Your task to perform on an android device: open the mobile data screen to see how much data has been used Image 0: 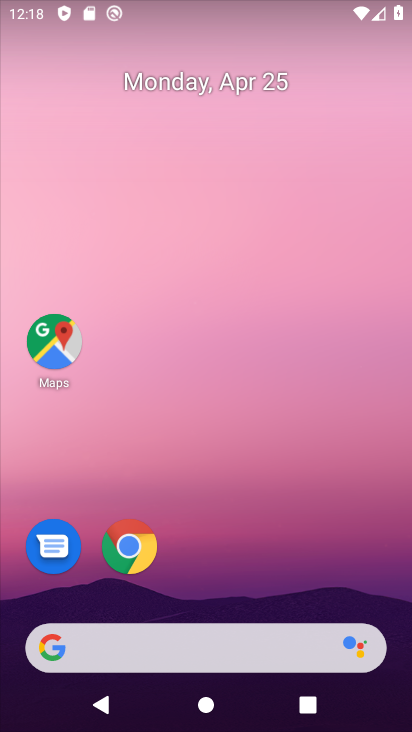
Step 0: drag from (135, 594) to (282, 8)
Your task to perform on an android device: open the mobile data screen to see how much data has been used Image 1: 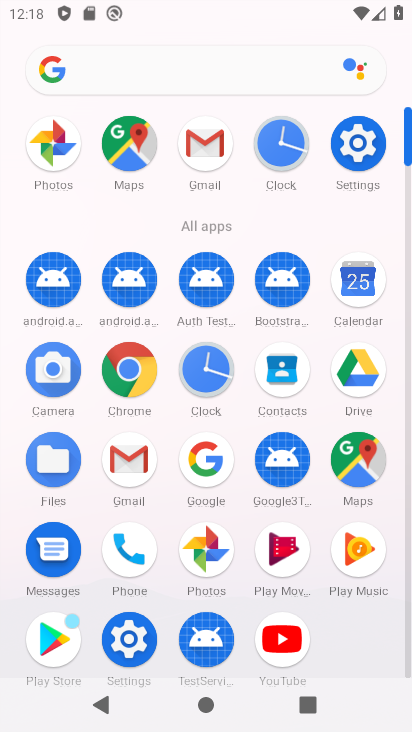
Step 1: click (128, 629)
Your task to perform on an android device: open the mobile data screen to see how much data has been used Image 2: 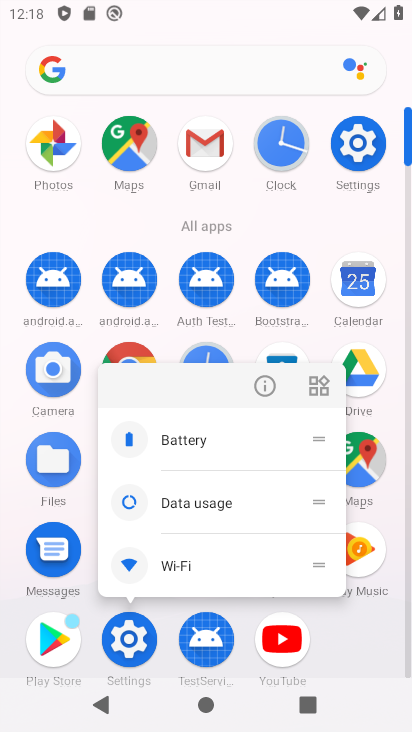
Step 2: click (123, 640)
Your task to perform on an android device: open the mobile data screen to see how much data has been used Image 3: 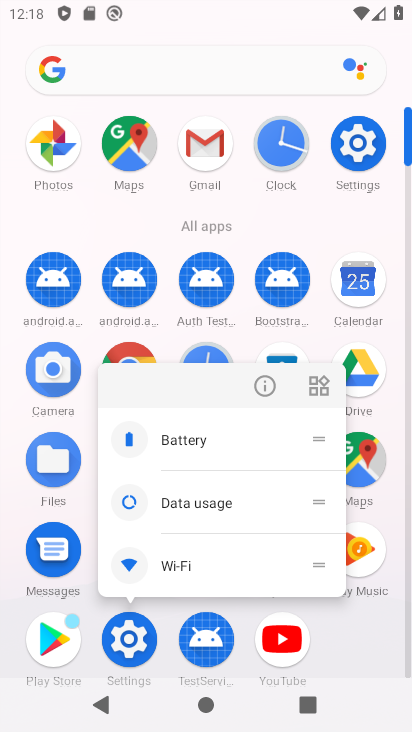
Step 3: click (123, 640)
Your task to perform on an android device: open the mobile data screen to see how much data has been used Image 4: 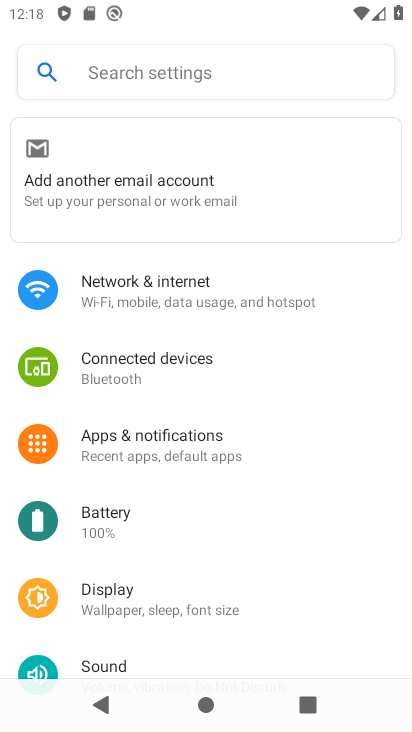
Step 4: click (332, 348)
Your task to perform on an android device: open the mobile data screen to see how much data has been used Image 5: 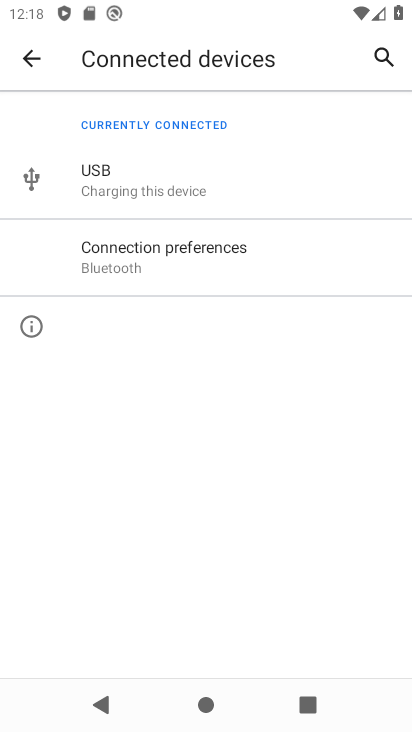
Step 5: click (44, 55)
Your task to perform on an android device: open the mobile data screen to see how much data has been used Image 6: 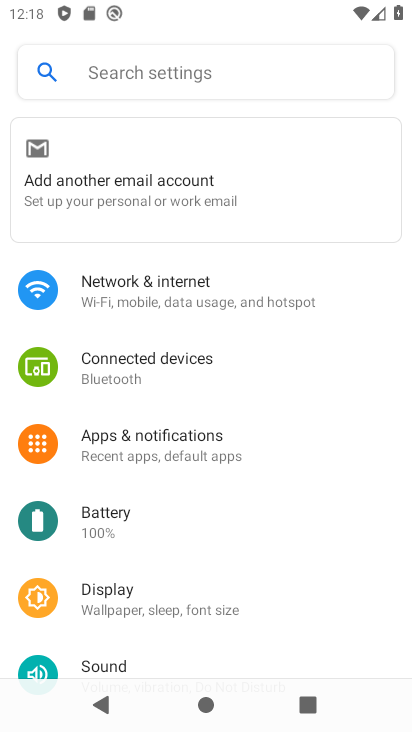
Step 6: drag from (150, 591) to (171, 199)
Your task to perform on an android device: open the mobile data screen to see how much data has been used Image 7: 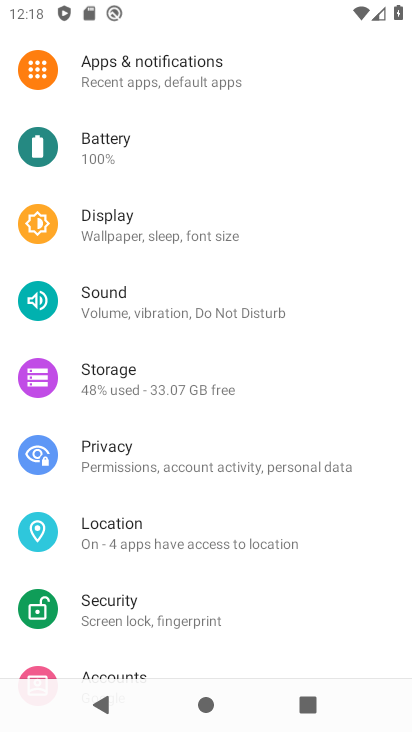
Step 7: drag from (187, 173) to (223, 563)
Your task to perform on an android device: open the mobile data screen to see how much data has been used Image 8: 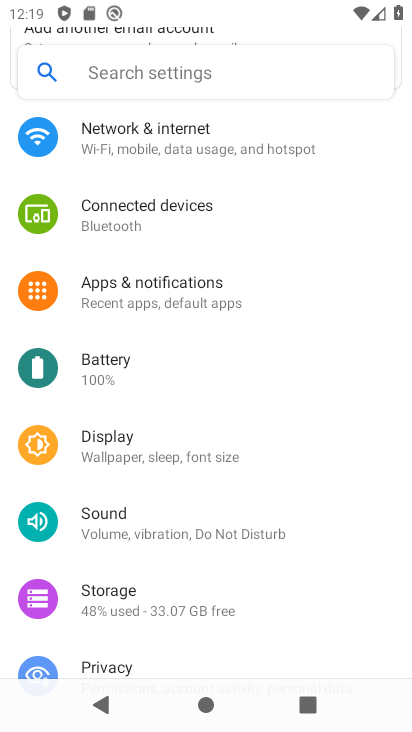
Step 8: click (157, 142)
Your task to perform on an android device: open the mobile data screen to see how much data has been used Image 9: 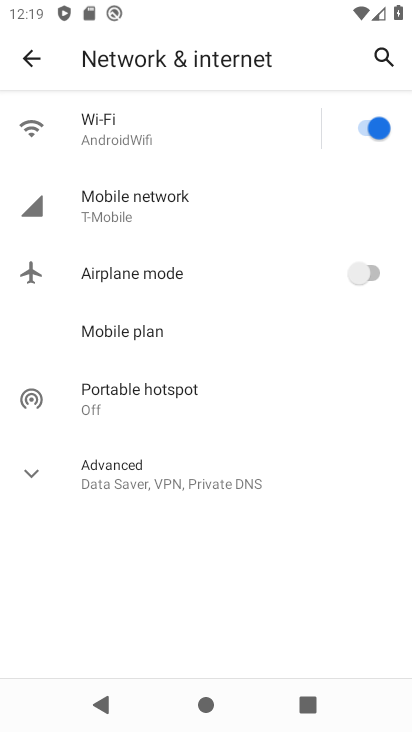
Step 9: click (139, 222)
Your task to perform on an android device: open the mobile data screen to see how much data has been used Image 10: 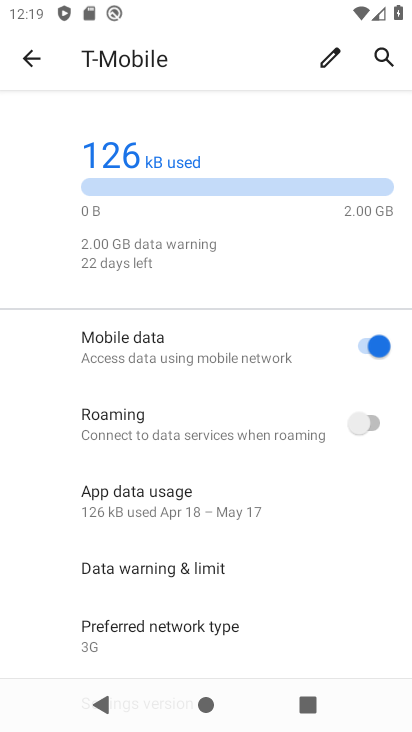
Step 10: click (141, 210)
Your task to perform on an android device: open the mobile data screen to see how much data has been used Image 11: 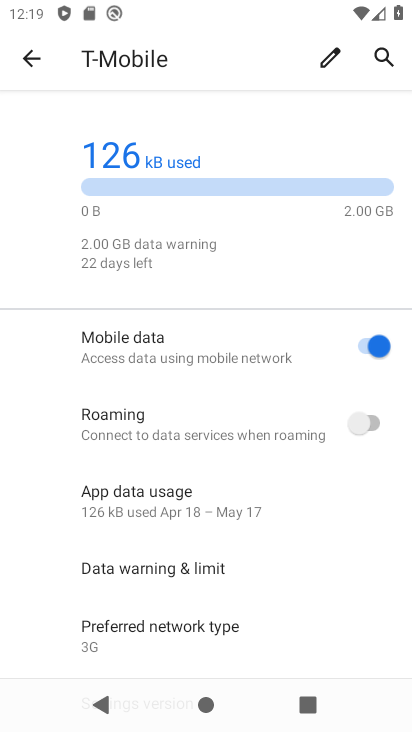
Step 11: click (38, 309)
Your task to perform on an android device: open the mobile data screen to see how much data has been used Image 12: 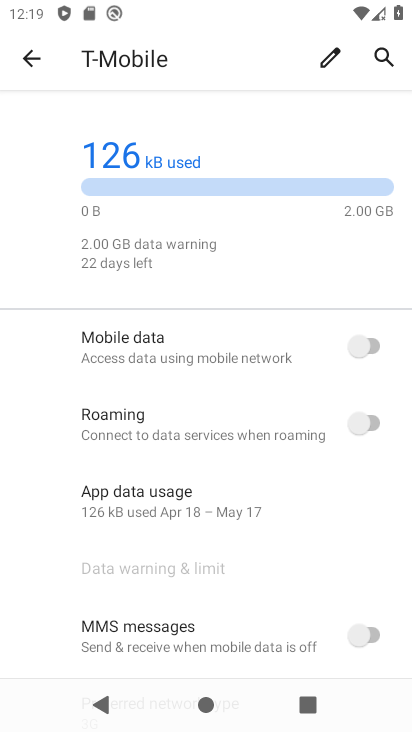
Step 12: task complete